Your task to perform on an android device: Search for sushi restaurants on Maps Image 0: 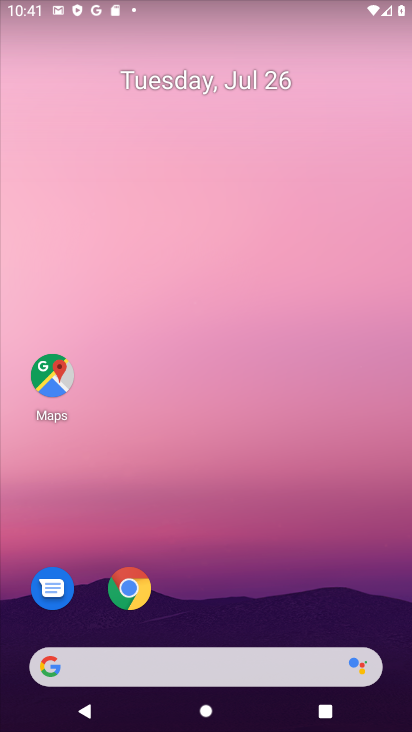
Step 0: drag from (237, 614) to (203, 133)
Your task to perform on an android device: Search for sushi restaurants on Maps Image 1: 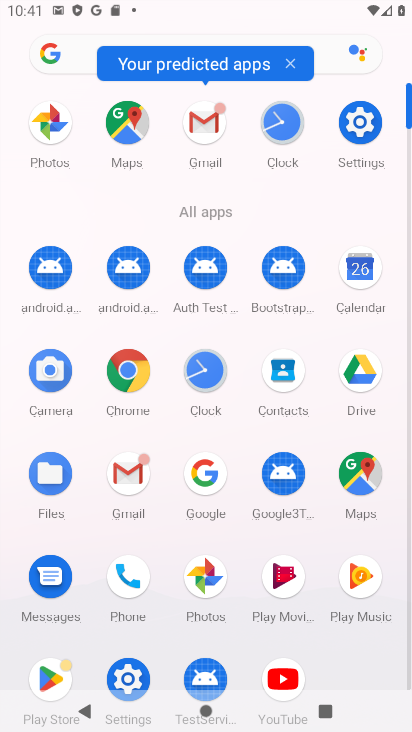
Step 1: click (129, 137)
Your task to perform on an android device: Search for sushi restaurants on Maps Image 2: 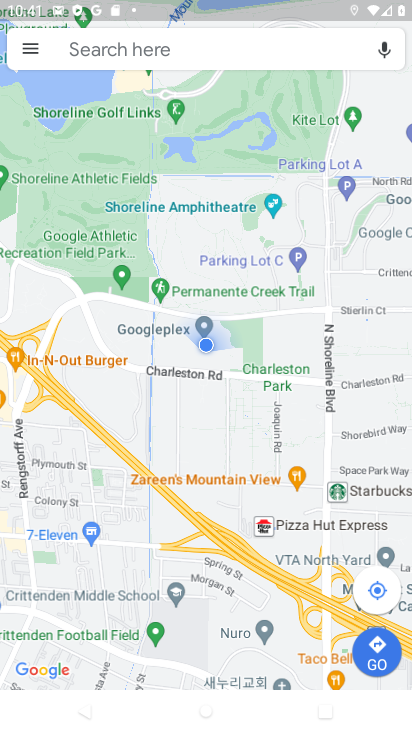
Step 2: click (195, 41)
Your task to perform on an android device: Search for sushi restaurants on Maps Image 3: 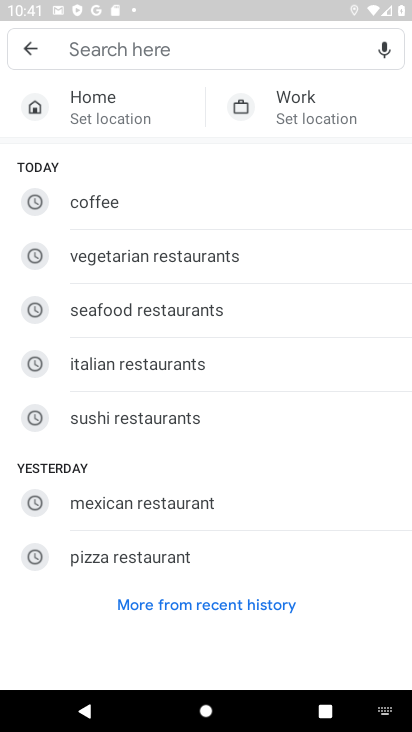
Step 3: click (162, 407)
Your task to perform on an android device: Search for sushi restaurants on Maps Image 4: 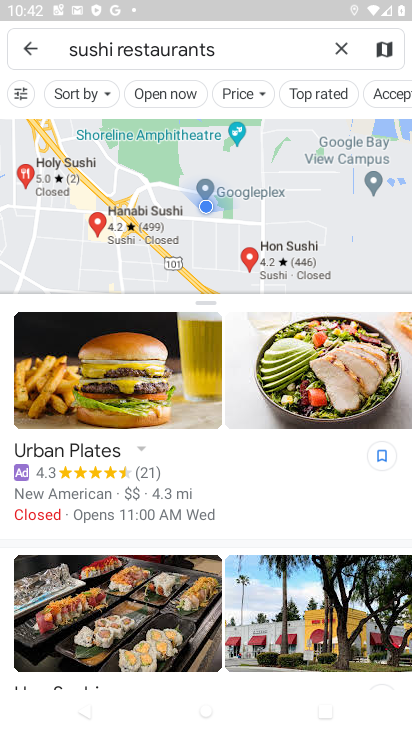
Step 4: task complete